Your task to perform on an android device: Open Android settings Image 0: 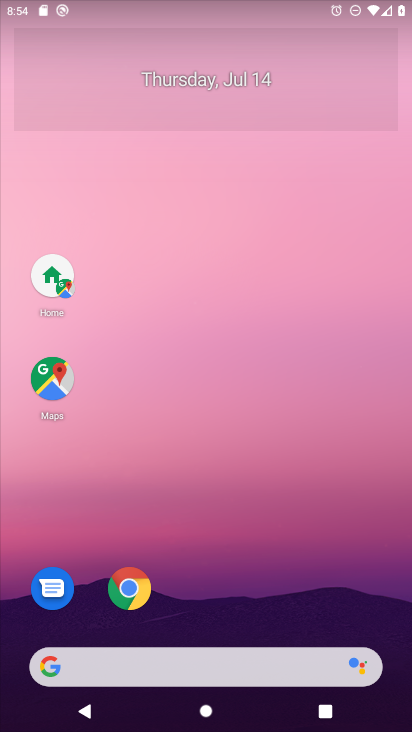
Step 0: drag from (39, 695) to (255, 157)
Your task to perform on an android device: Open Android settings Image 1: 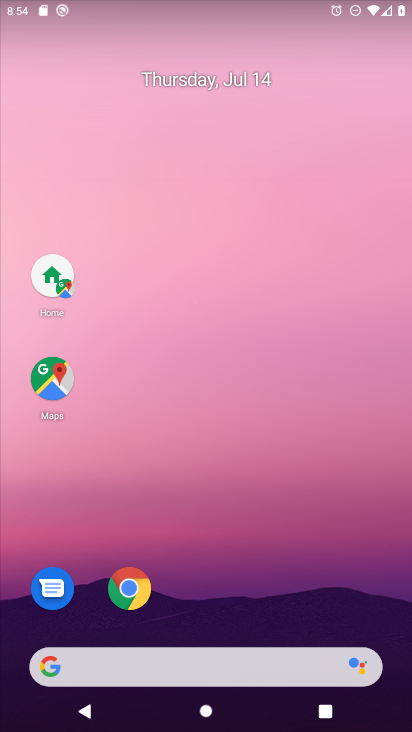
Step 1: drag from (33, 708) to (290, 168)
Your task to perform on an android device: Open Android settings Image 2: 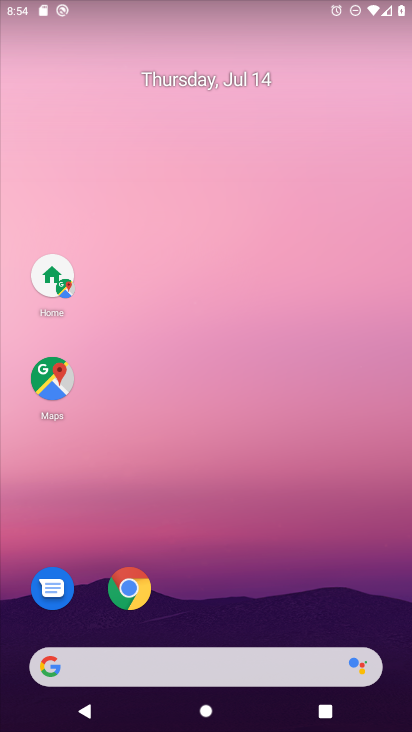
Step 2: drag from (25, 708) to (308, 110)
Your task to perform on an android device: Open Android settings Image 3: 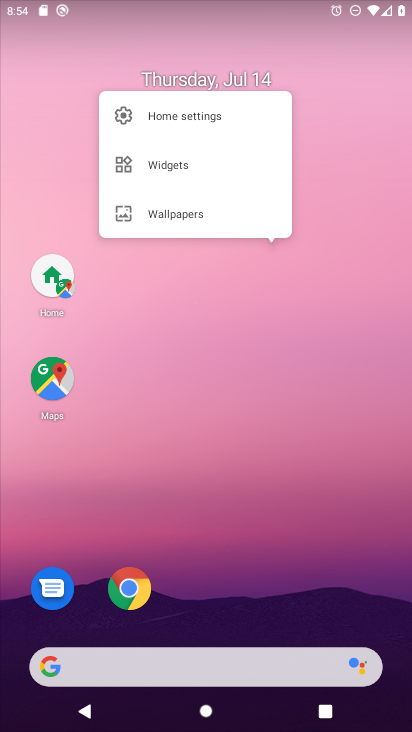
Step 3: drag from (49, 690) to (314, 49)
Your task to perform on an android device: Open Android settings Image 4: 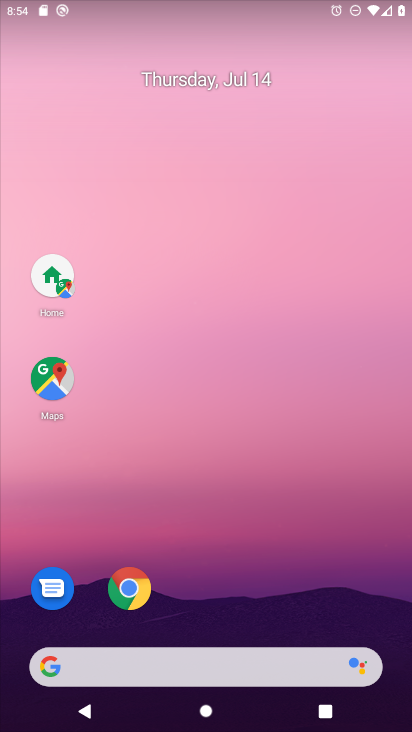
Step 4: drag from (46, 688) to (268, 45)
Your task to perform on an android device: Open Android settings Image 5: 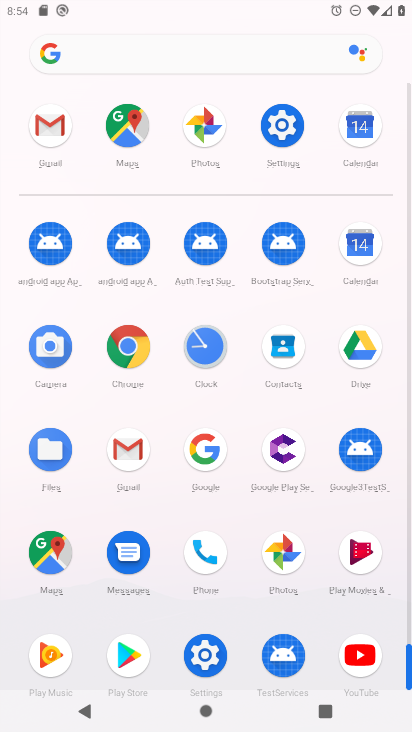
Step 5: click (185, 658)
Your task to perform on an android device: Open Android settings Image 6: 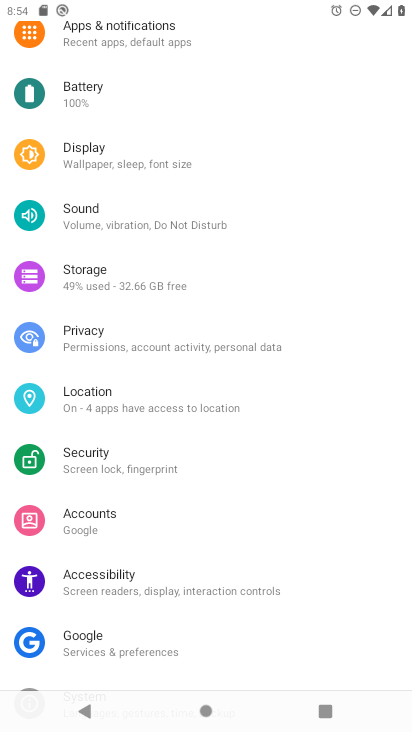
Step 6: drag from (261, 646) to (376, 20)
Your task to perform on an android device: Open Android settings Image 7: 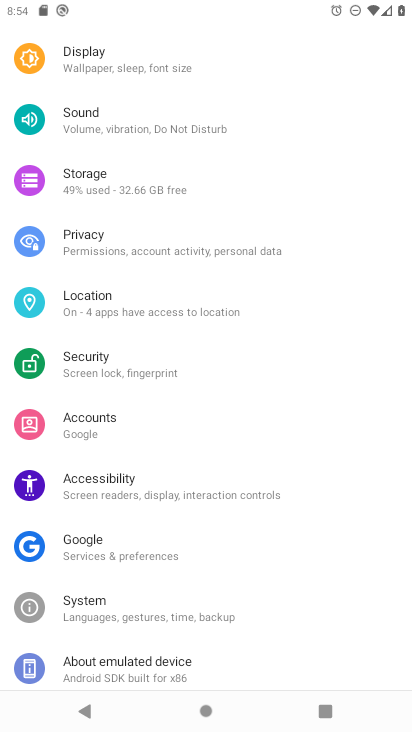
Step 7: click (118, 649)
Your task to perform on an android device: Open Android settings Image 8: 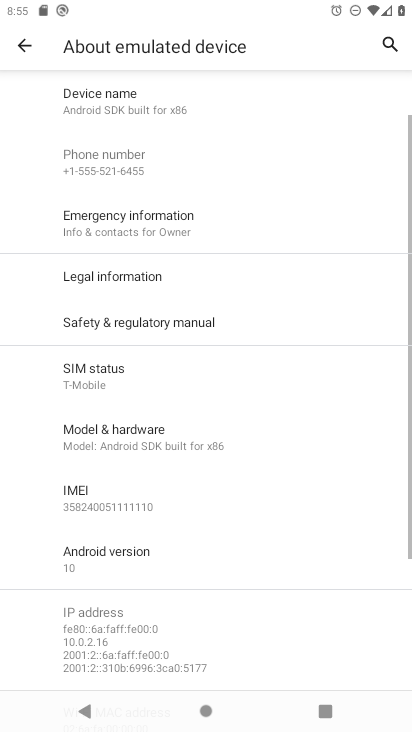
Step 8: click (133, 553)
Your task to perform on an android device: Open Android settings Image 9: 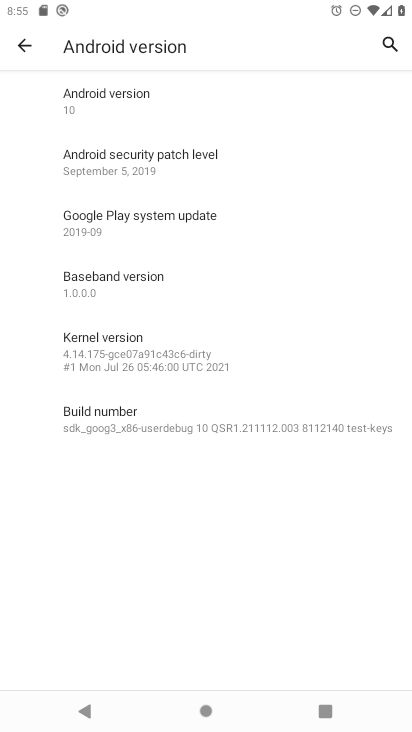
Step 9: task complete